Your task to perform on an android device: check android version Image 0: 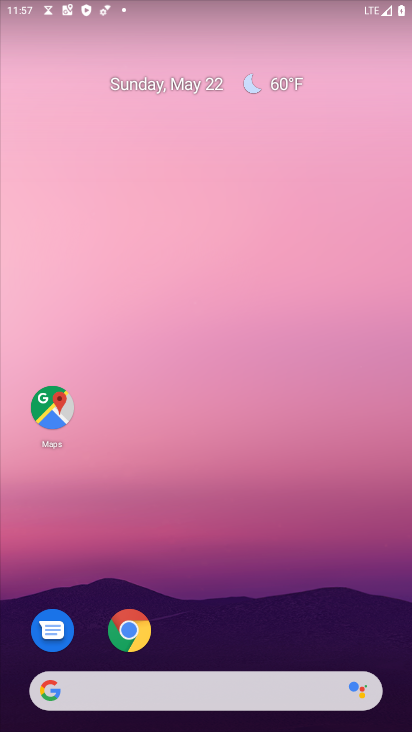
Step 0: drag from (283, 562) to (201, 166)
Your task to perform on an android device: check android version Image 1: 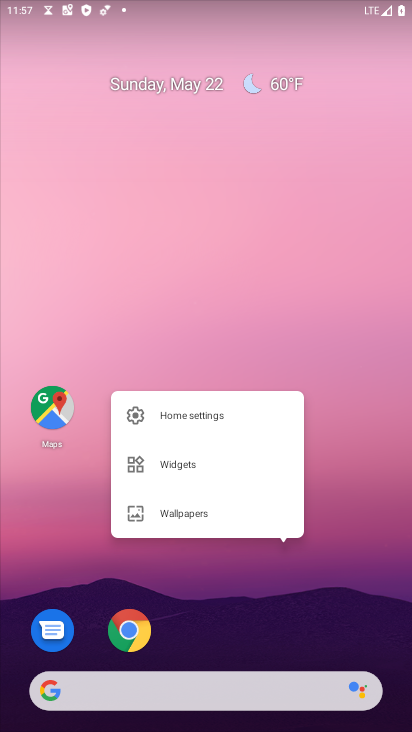
Step 1: drag from (255, 591) to (177, 29)
Your task to perform on an android device: check android version Image 2: 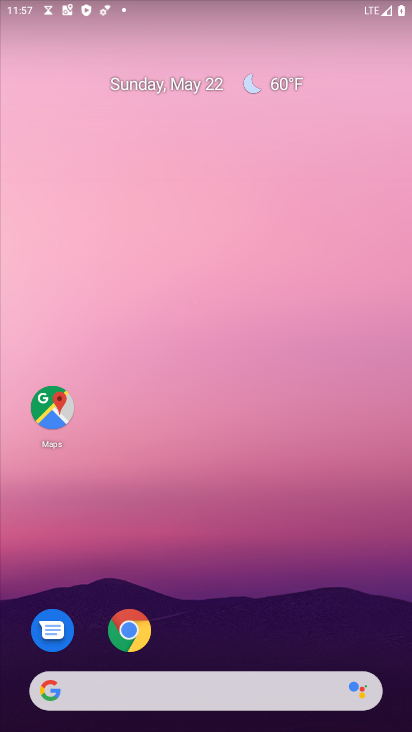
Step 2: drag from (256, 626) to (240, 12)
Your task to perform on an android device: check android version Image 3: 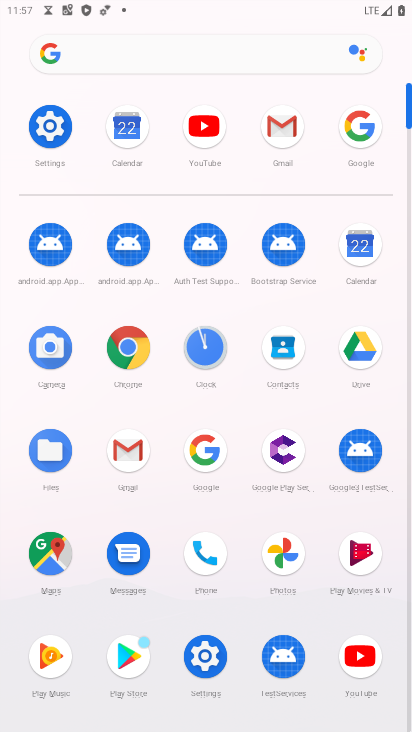
Step 3: click (204, 658)
Your task to perform on an android device: check android version Image 4: 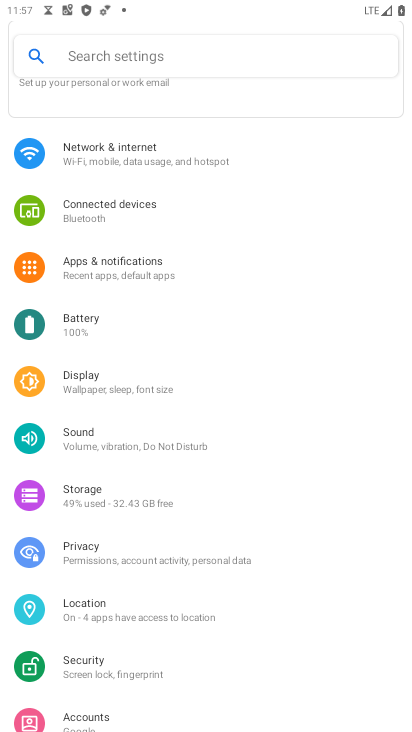
Step 4: drag from (142, 596) to (157, 510)
Your task to perform on an android device: check android version Image 5: 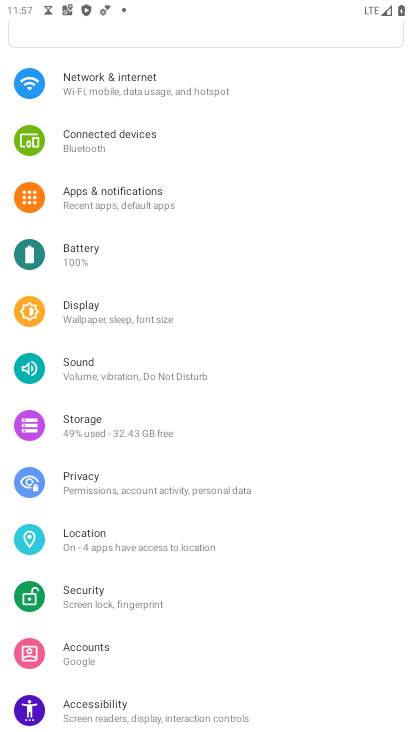
Step 5: drag from (112, 626) to (169, 523)
Your task to perform on an android device: check android version Image 6: 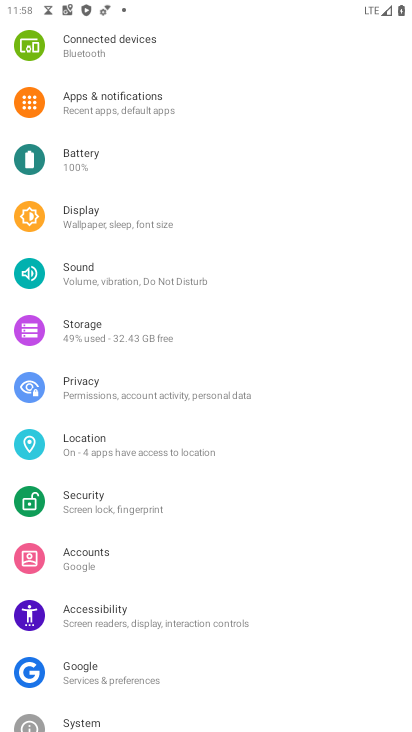
Step 6: drag from (125, 520) to (193, 418)
Your task to perform on an android device: check android version Image 7: 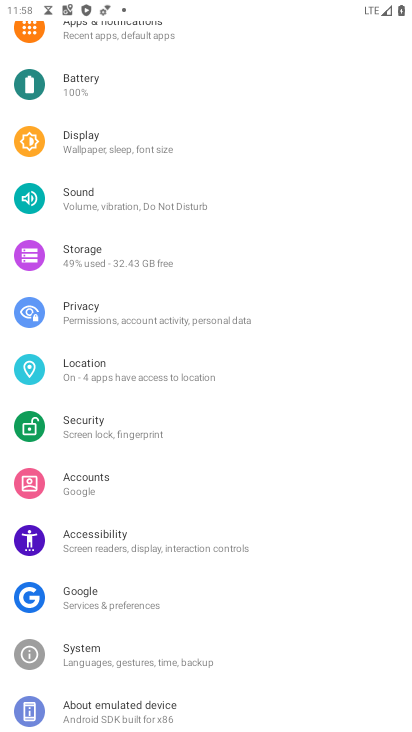
Step 7: drag from (120, 574) to (187, 490)
Your task to perform on an android device: check android version Image 8: 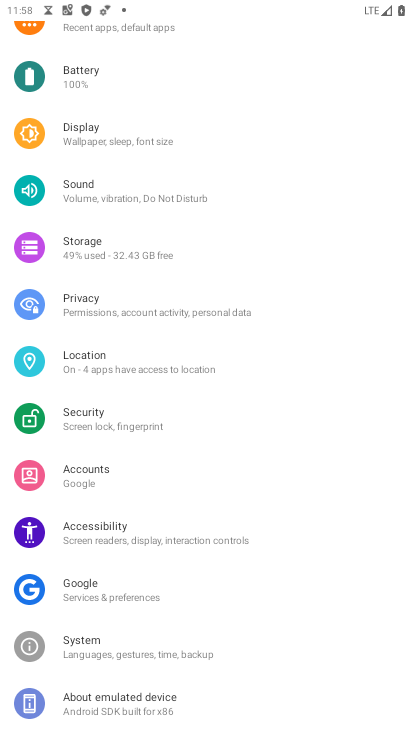
Step 8: click (150, 703)
Your task to perform on an android device: check android version Image 9: 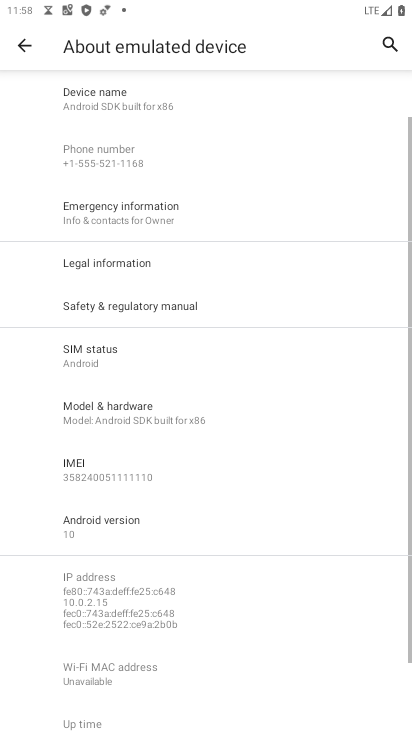
Step 9: click (118, 525)
Your task to perform on an android device: check android version Image 10: 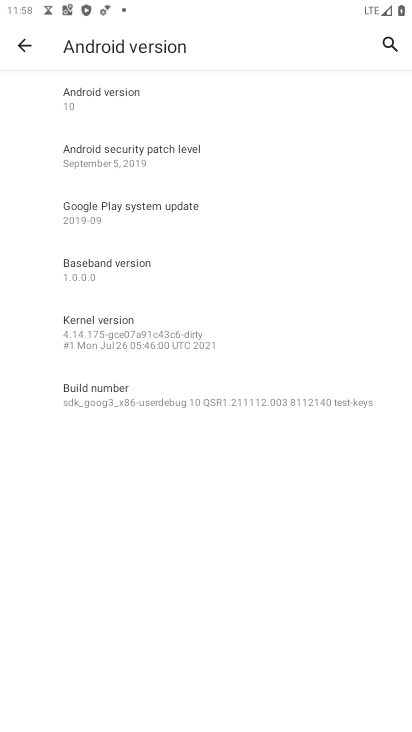
Step 10: task complete